Your task to perform on an android device: change your default location settings in chrome Image 0: 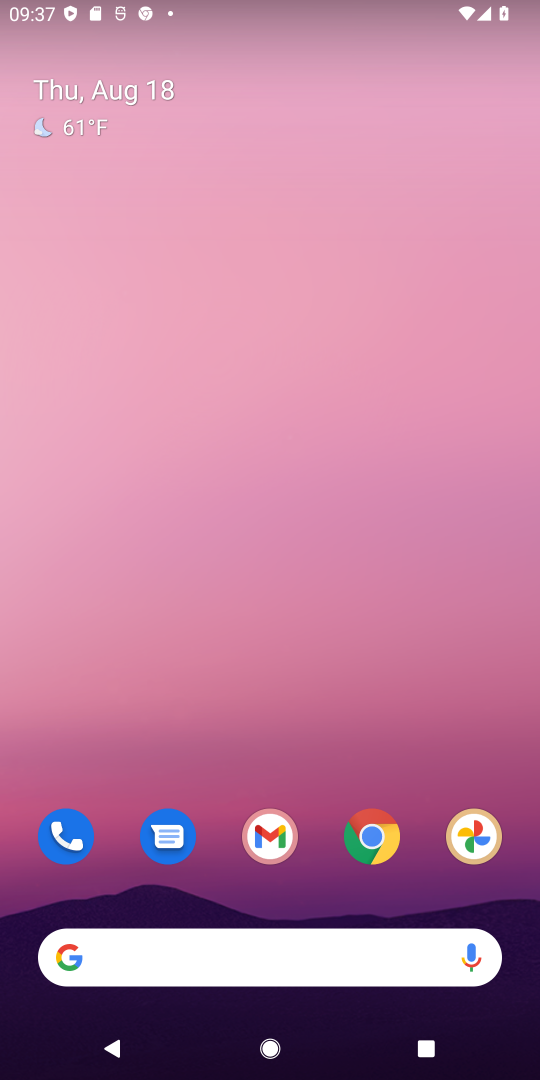
Step 0: drag from (338, 695) to (355, 40)
Your task to perform on an android device: change your default location settings in chrome Image 1: 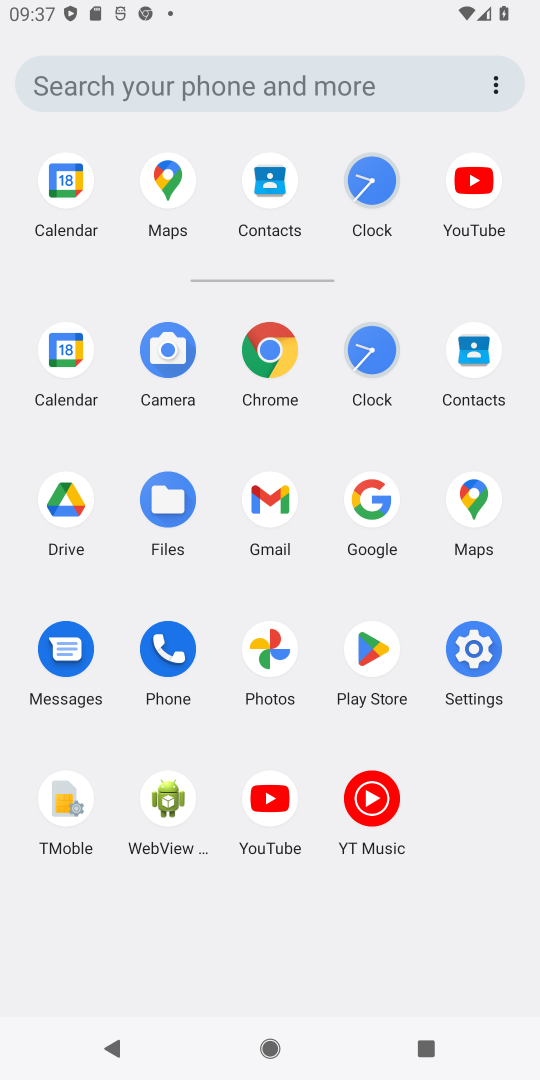
Step 1: click (275, 352)
Your task to perform on an android device: change your default location settings in chrome Image 2: 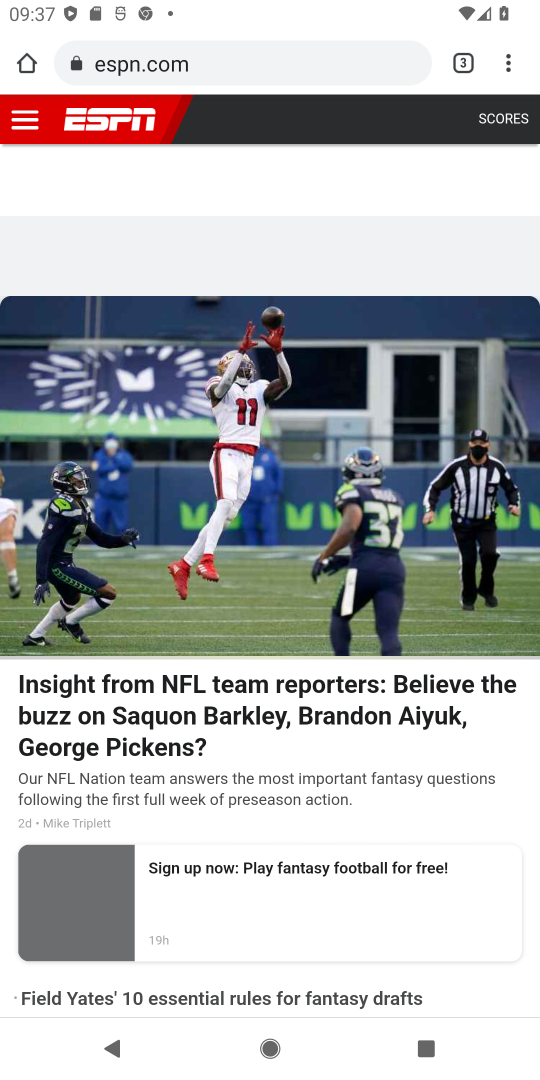
Step 2: drag from (520, 60) to (377, 834)
Your task to perform on an android device: change your default location settings in chrome Image 3: 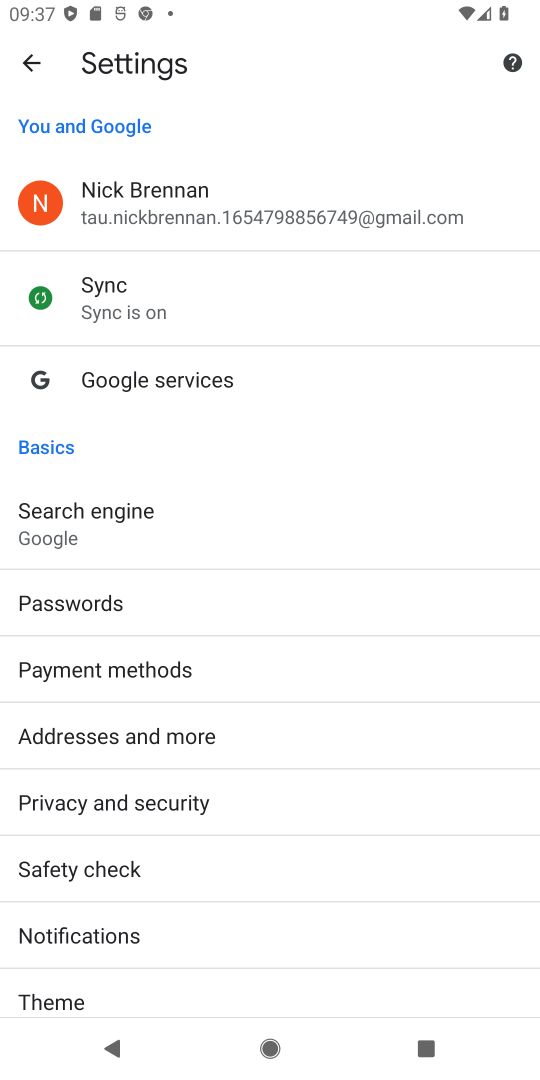
Step 3: drag from (155, 951) to (269, 379)
Your task to perform on an android device: change your default location settings in chrome Image 4: 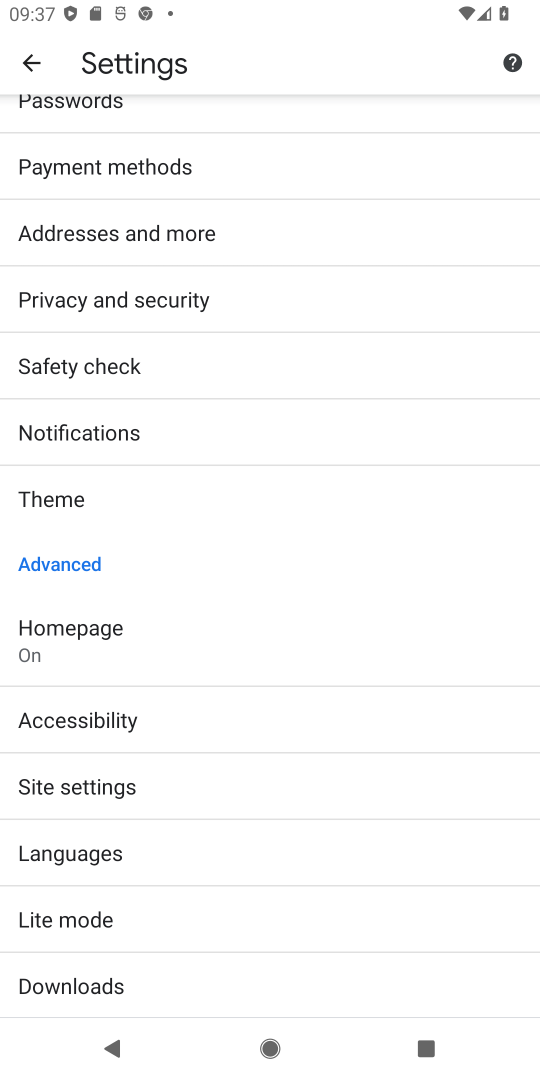
Step 4: click (78, 795)
Your task to perform on an android device: change your default location settings in chrome Image 5: 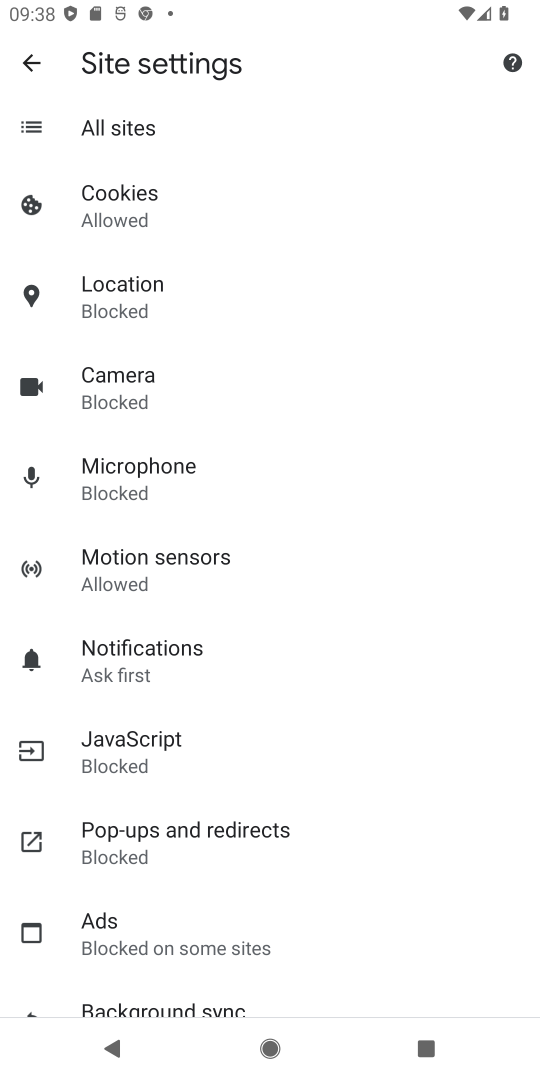
Step 5: click (108, 289)
Your task to perform on an android device: change your default location settings in chrome Image 6: 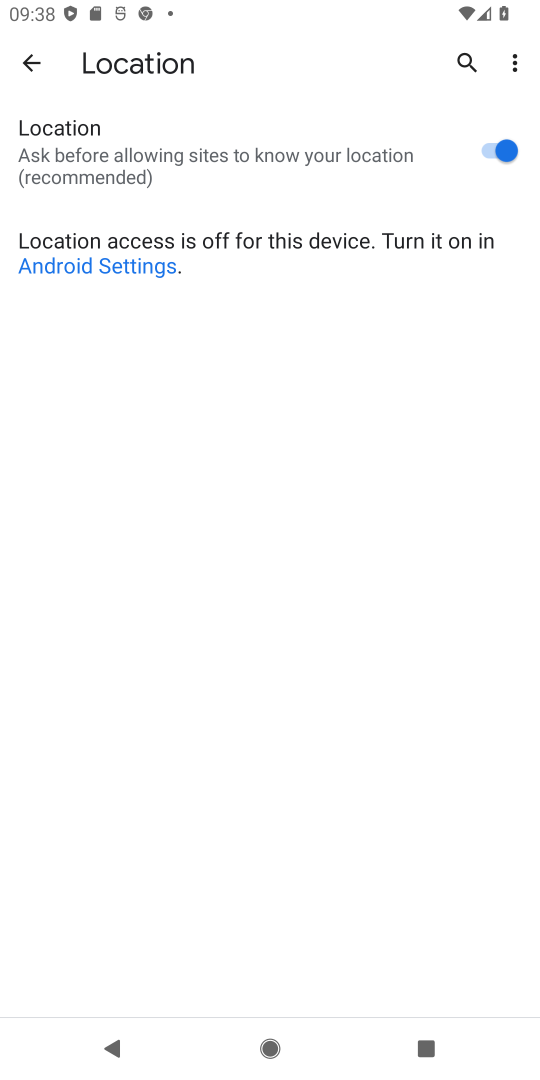
Step 6: click (480, 156)
Your task to perform on an android device: change your default location settings in chrome Image 7: 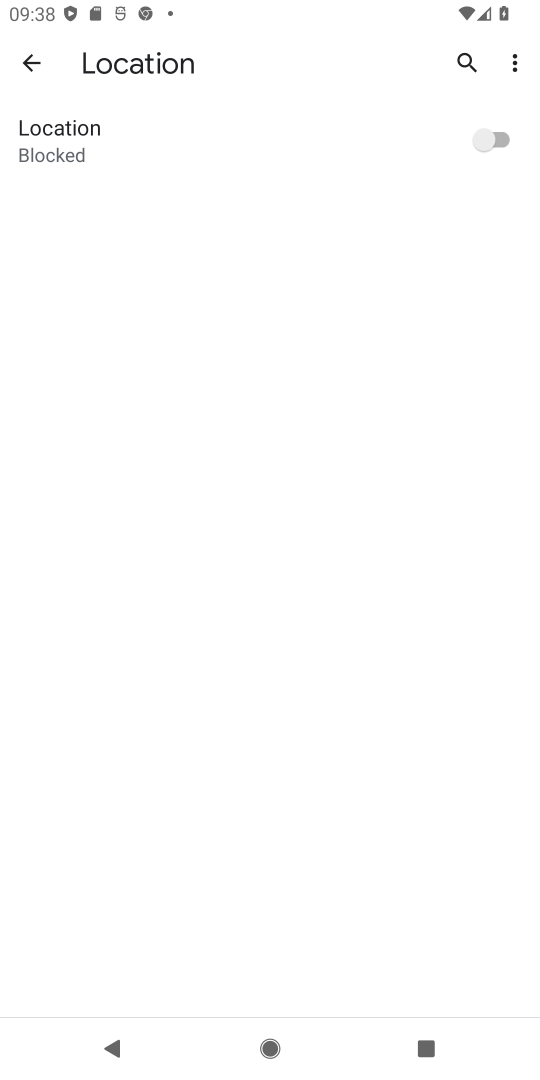
Step 7: task complete